Your task to perform on an android device: Go to sound settings Image 0: 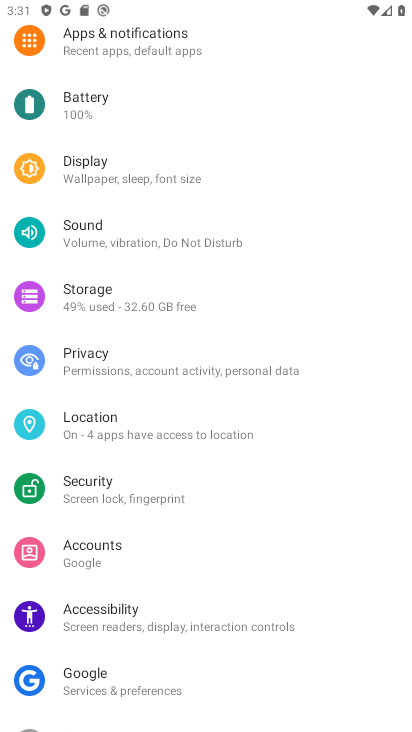
Step 0: click (91, 240)
Your task to perform on an android device: Go to sound settings Image 1: 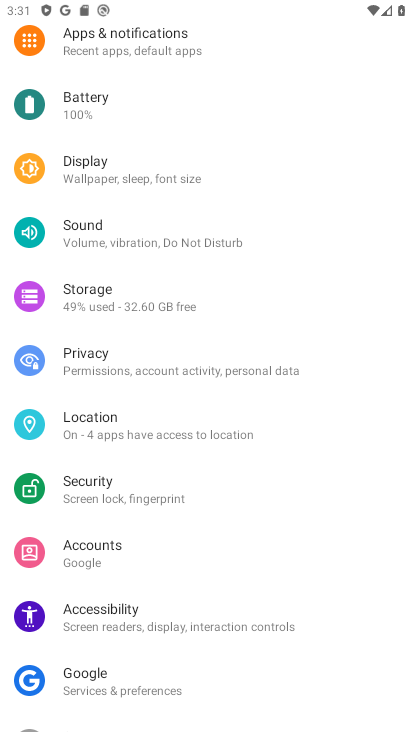
Step 1: click (96, 231)
Your task to perform on an android device: Go to sound settings Image 2: 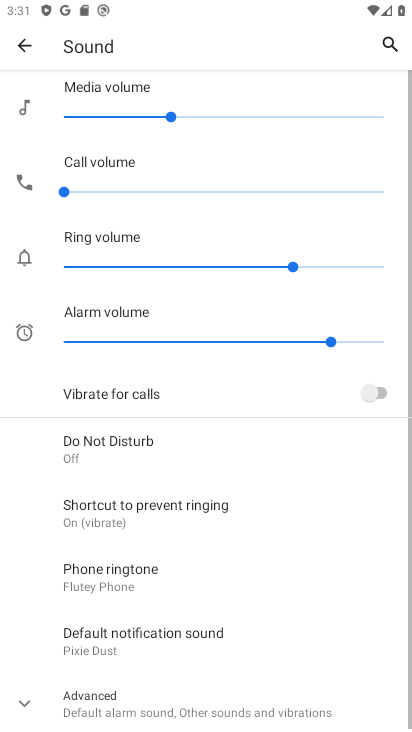
Step 2: drag from (109, 220) to (153, 234)
Your task to perform on an android device: Go to sound settings Image 3: 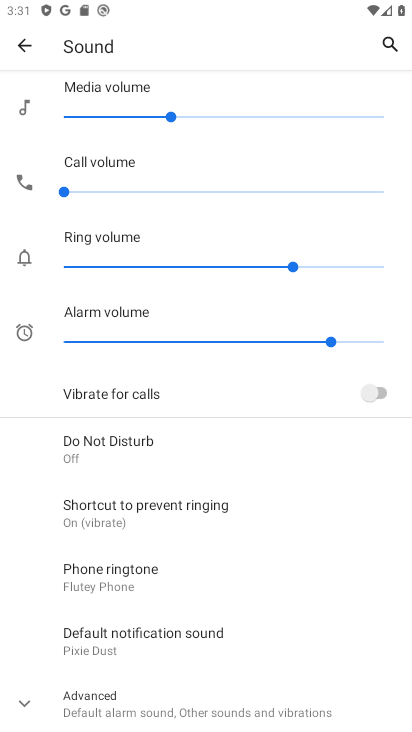
Step 3: click (160, 233)
Your task to perform on an android device: Go to sound settings Image 4: 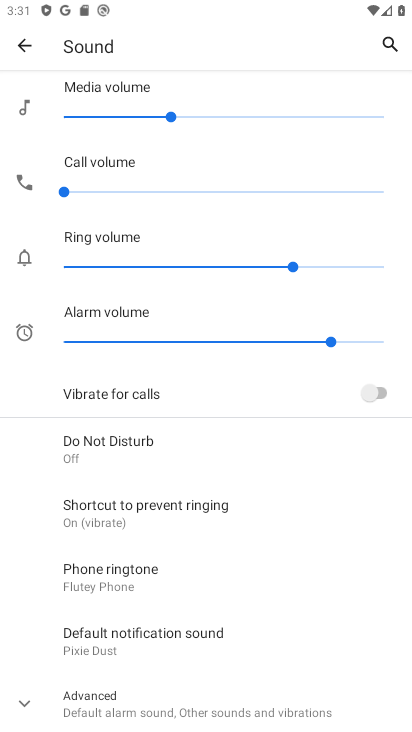
Step 4: task complete